Your task to perform on an android device: View the shopping cart on newegg.com. Add macbook pro 15 inch to the cart on newegg.com, then select checkout. Image 0: 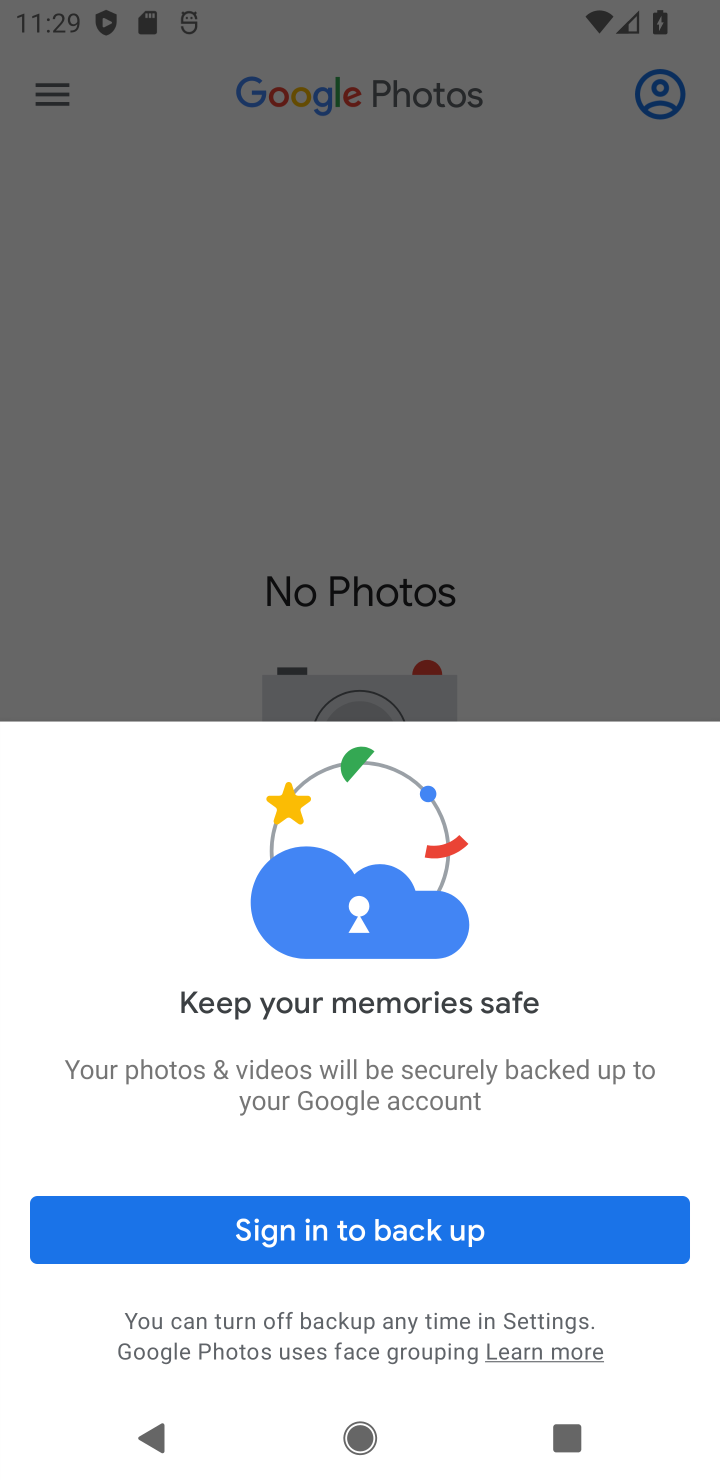
Step 0: press home button
Your task to perform on an android device: View the shopping cart on newegg.com. Add macbook pro 15 inch to the cart on newegg.com, then select checkout. Image 1: 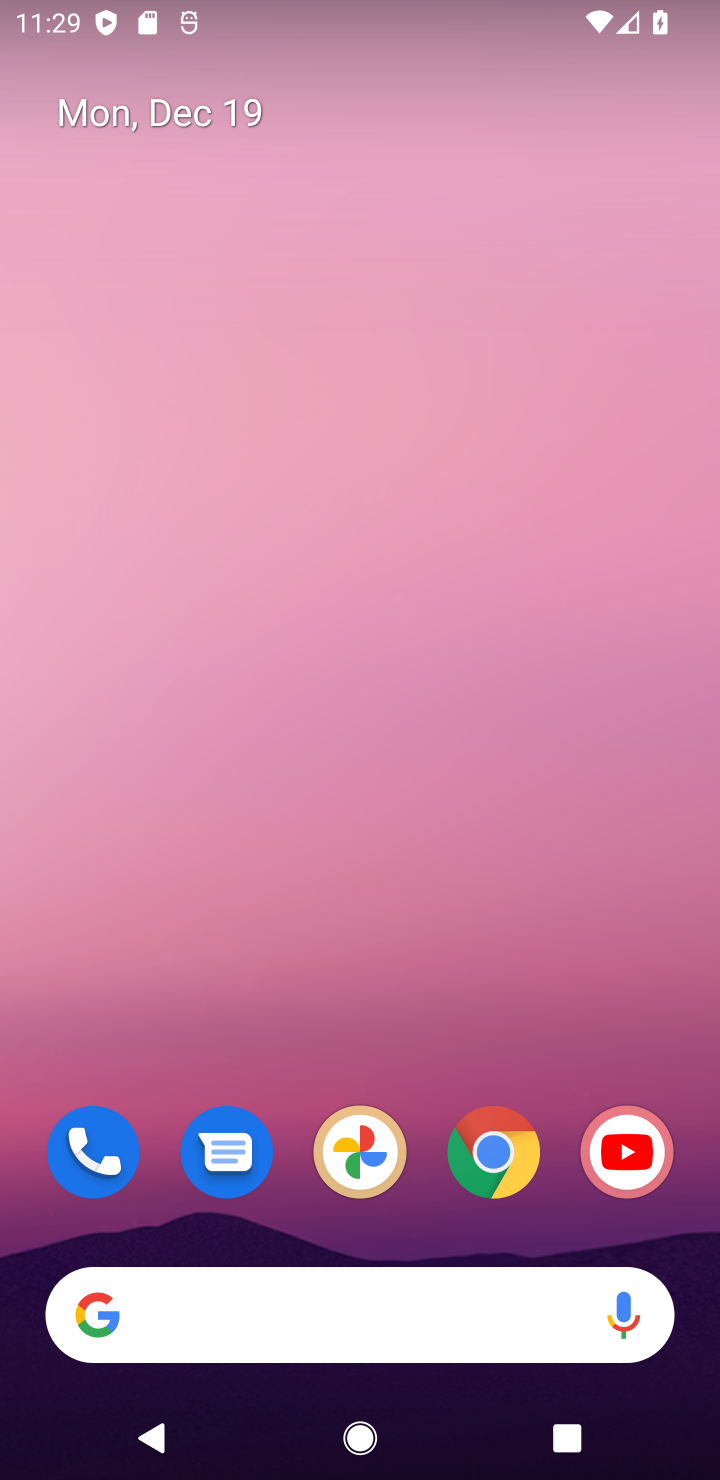
Step 1: click (494, 1138)
Your task to perform on an android device: View the shopping cart on newegg.com. Add macbook pro 15 inch to the cart on newegg.com, then select checkout. Image 2: 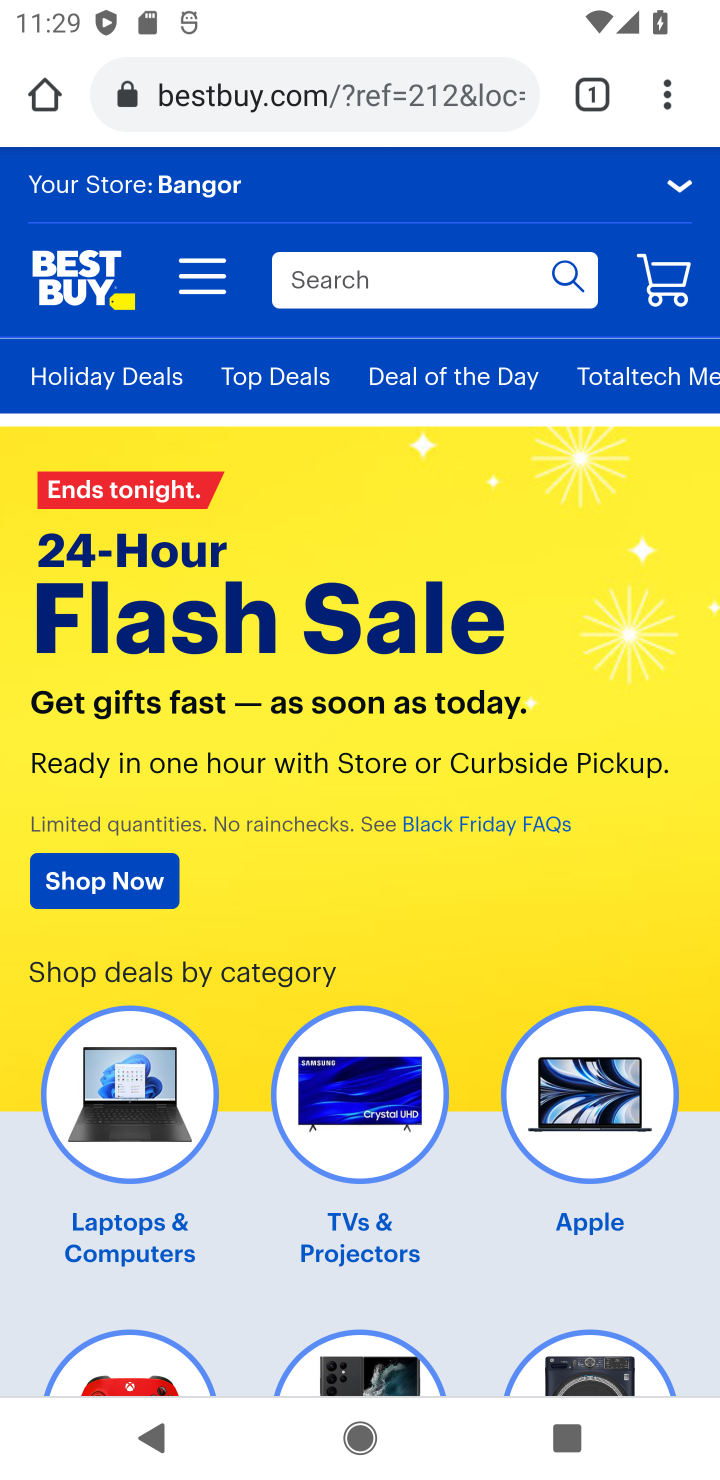
Step 2: click (378, 78)
Your task to perform on an android device: View the shopping cart on newegg.com. Add macbook pro 15 inch to the cart on newegg.com, then select checkout. Image 3: 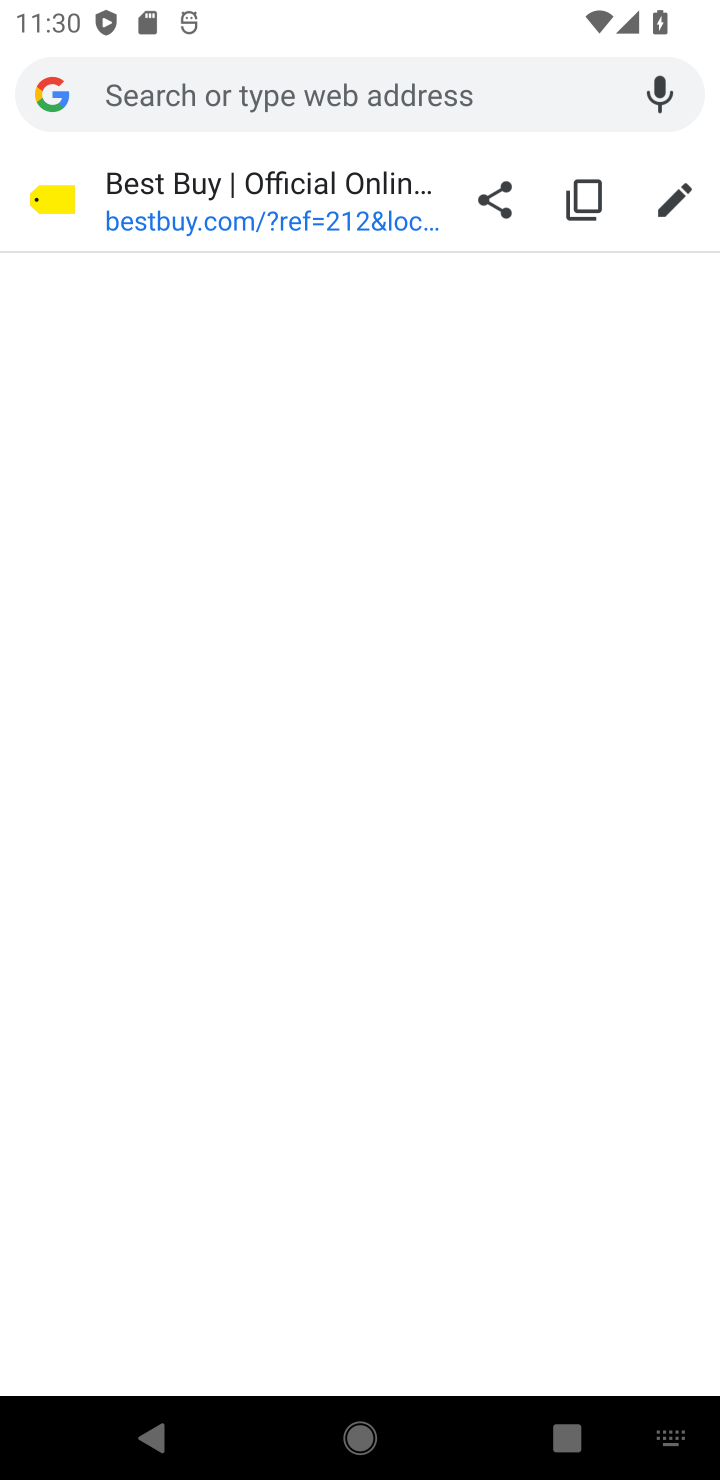
Step 3: type "neweggg"
Your task to perform on an android device: View the shopping cart on newegg.com. Add macbook pro 15 inch to the cart on newegg.com, then select checkout. Image 4: 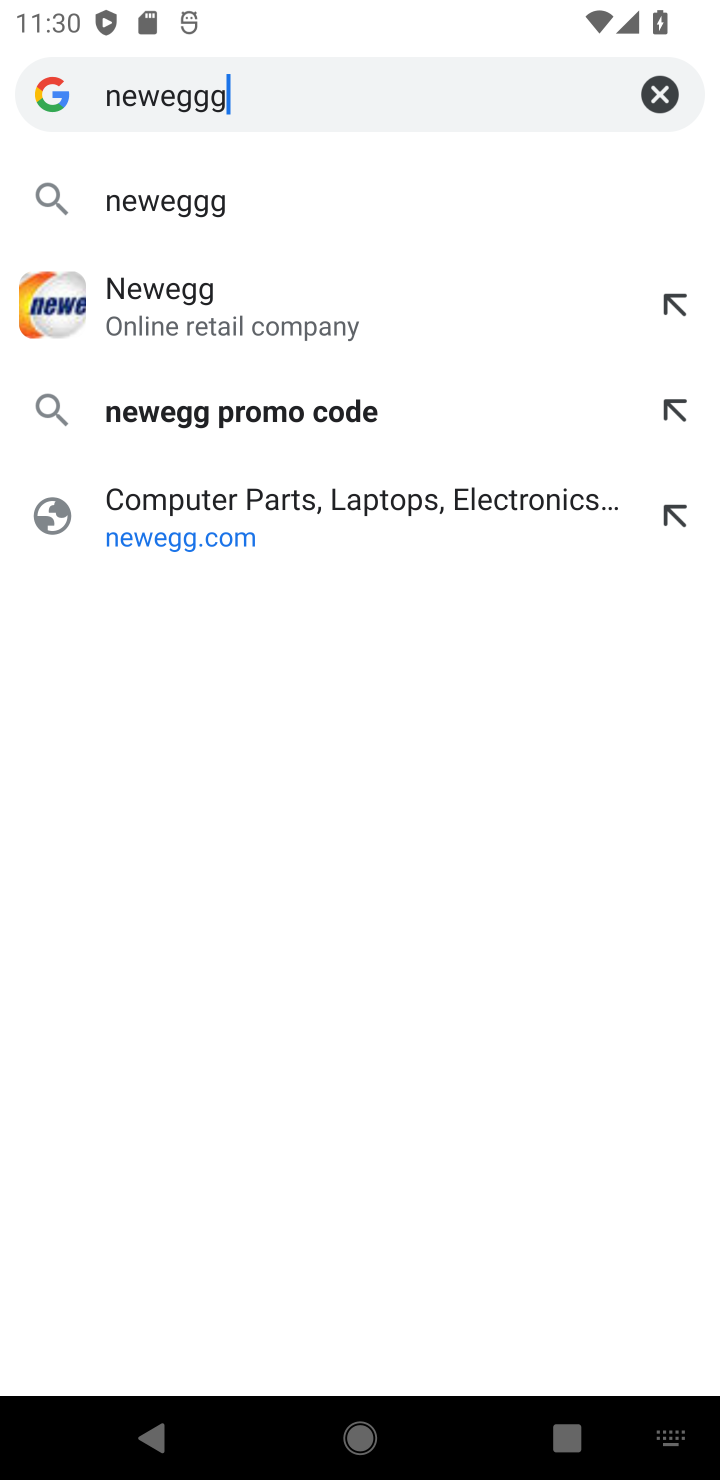
Step 4: click (234, 302)
Your task to perform on an android device: View the shopping cart on newegg.com. Add macbook pro 15 inch to the cart on newegg.com, then select checkout. Image 5: 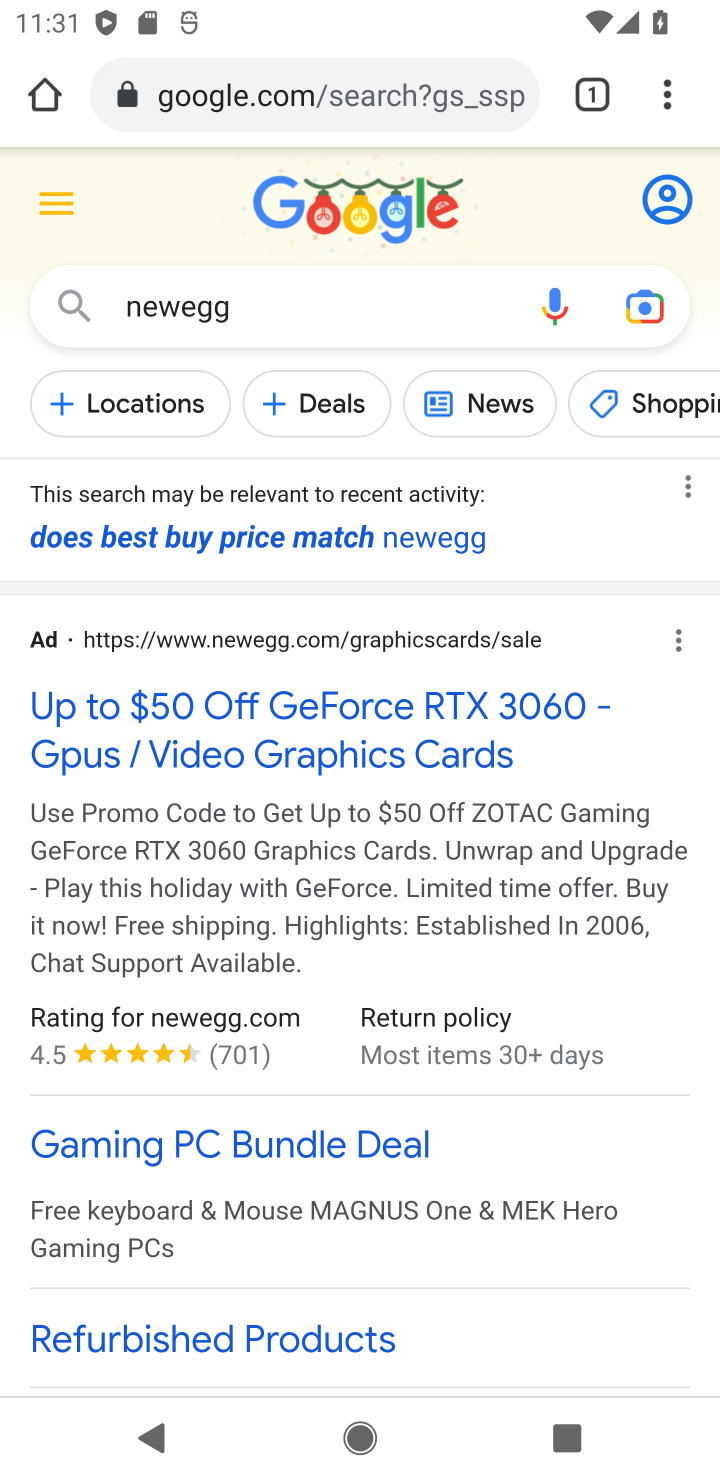
Step 5: click (414, 724)
Your task to perform on an android device: View the shopping cart on newegg.com. Add macbook pro 15 inch to the cart on newegg.com, then select checkout. Image 6: 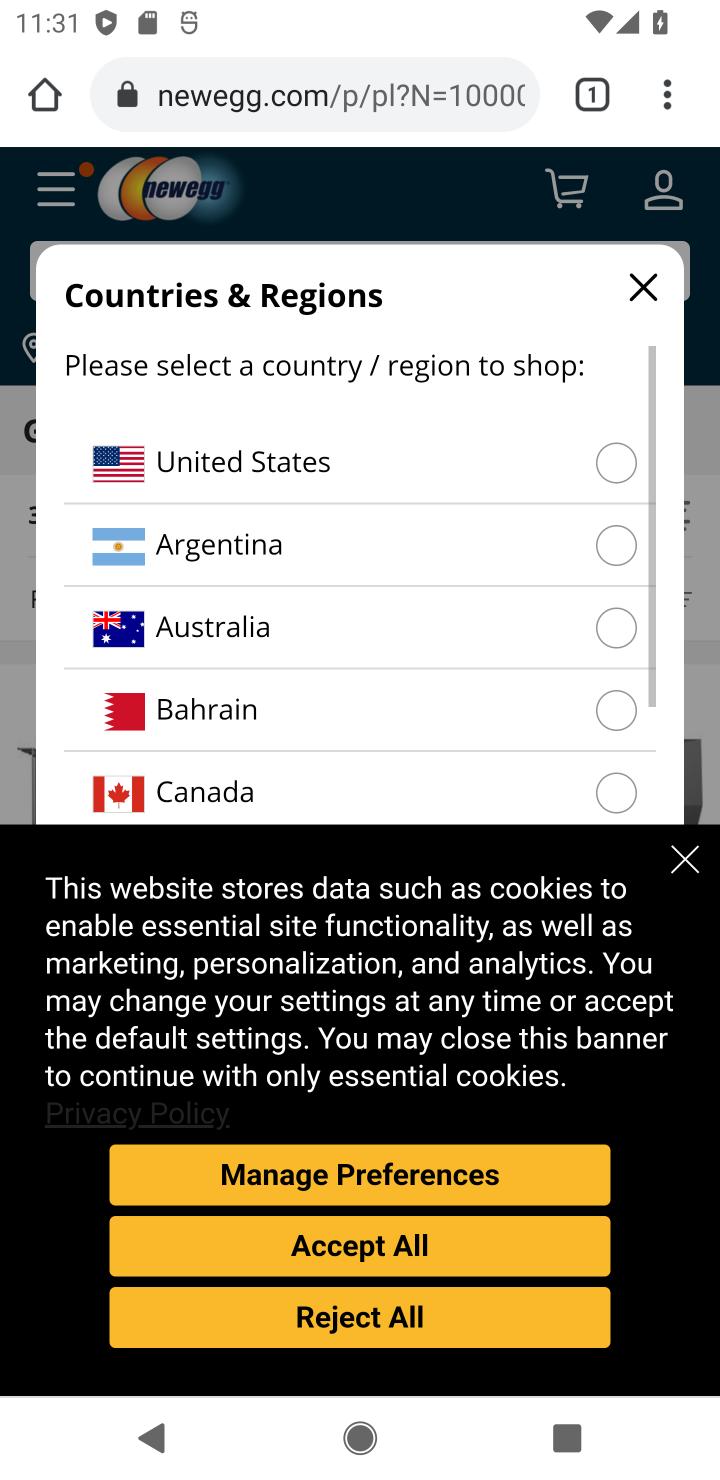
Step 6: click (391, 1247)
Your task to perform on an android device: View the shopping cart on newegg.com. Add macbook pro 15 inch to the cart on newegg.com, then select checkout. Image 7: 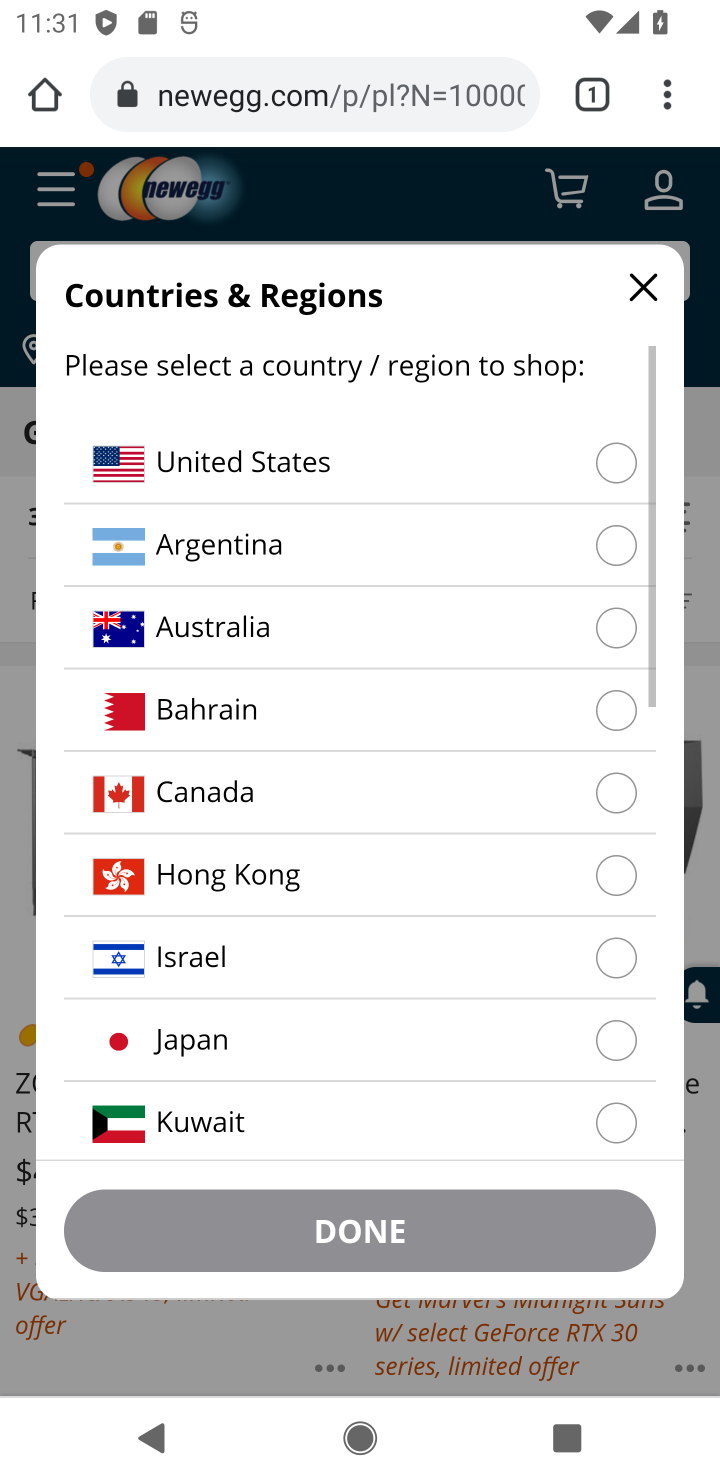
Step 7: click (434, 463)
Your task to perform on an android device: View the shopping cart on newegg.com. Add macbook pro 15 inch to the cart on newegg.com, then select checkout. Image 8: 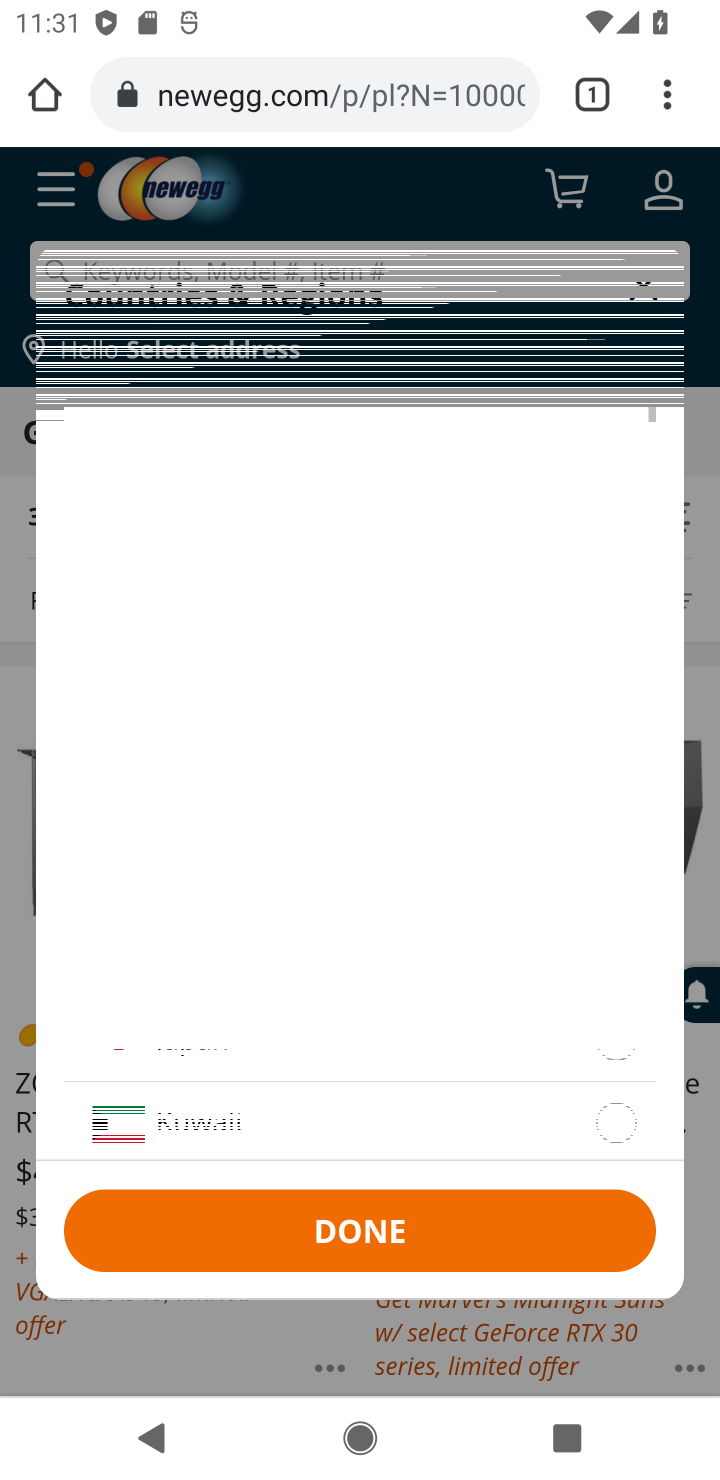
Step 8: click (356, 1242)
Your task to perform on an android device: View the shopping cart on newegg.com. Add macbook pro 15 inch to the cart on newegg.com, then select checkout. Image 9: 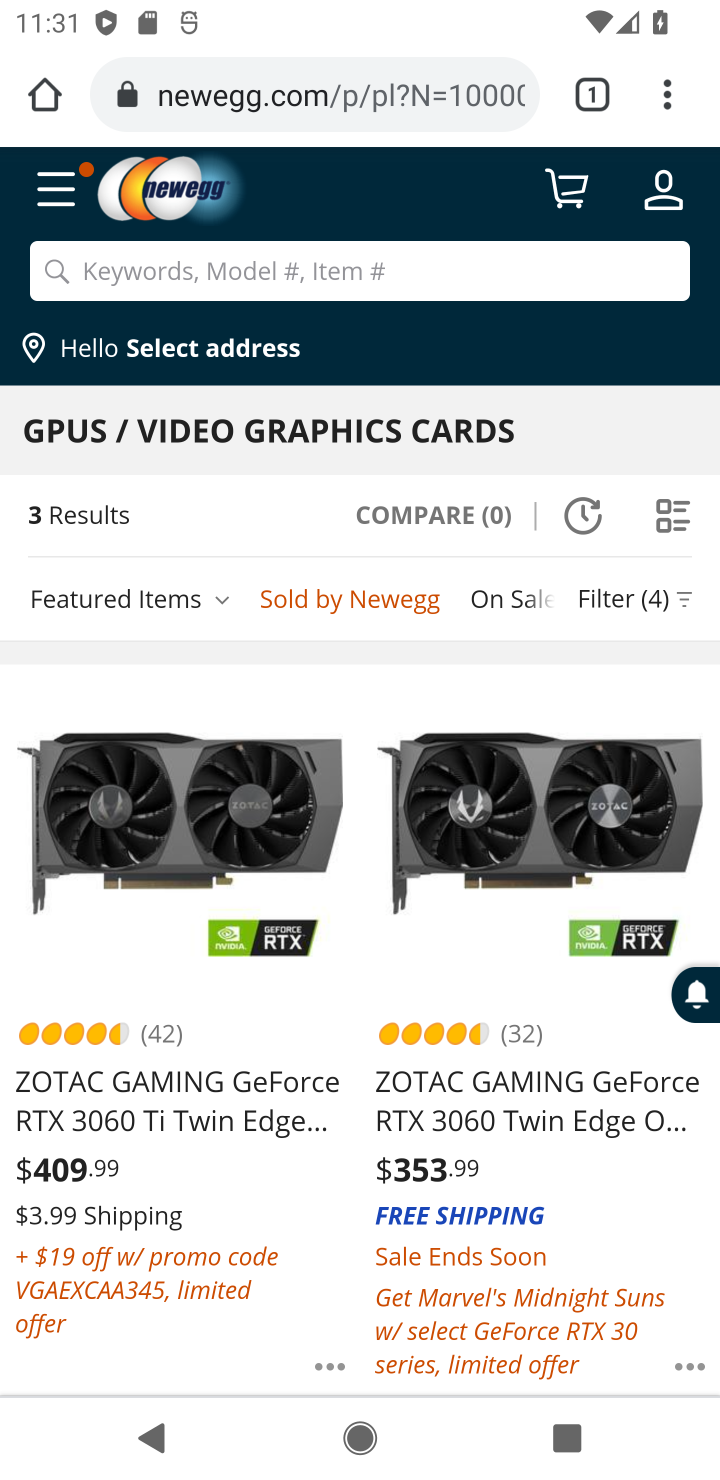
Step 9: click (444, 271)
Your task to perform on an android device: View the shopping cart on newegg.com. Add macbook pro 15 inch to the cart on newegg.com, then select checkout. Image 10: 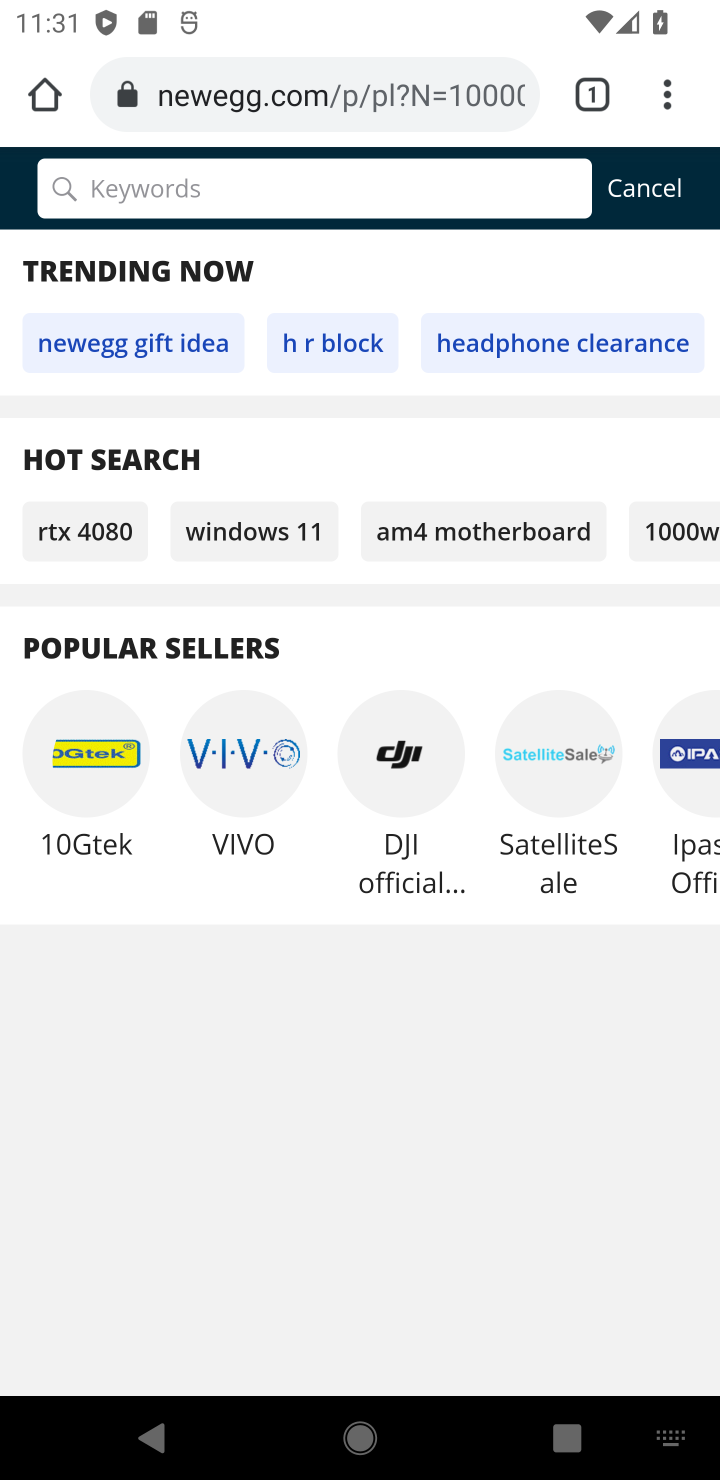
Step 10: type "macbook pro 15 inch"
Your task to perform on an android device: View the shopping cart on newegg.com. Add macbook pro 15 inch to the cart on newegg.com, then select checkout. Image 11: 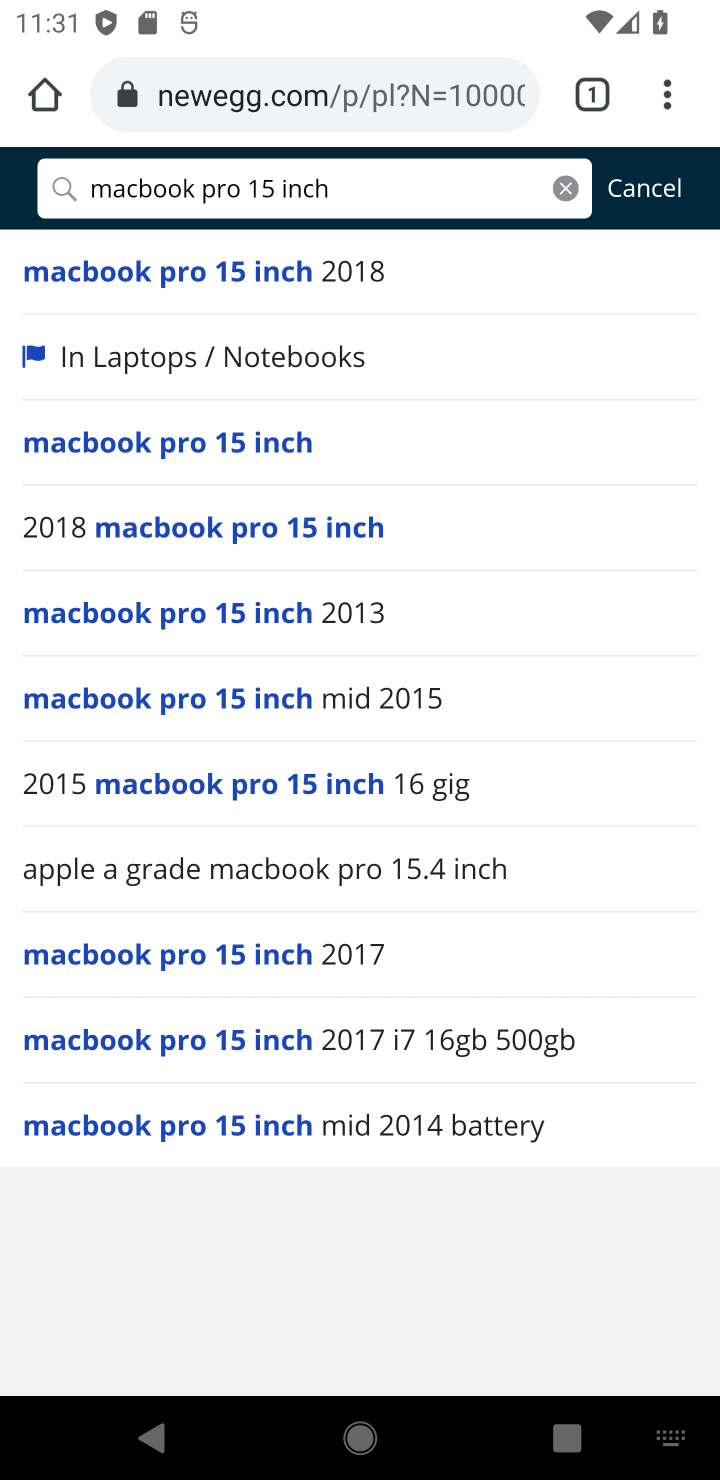
Step 11: click (255, 279)
Your task to perform on an android device: View the shopping cart on newegg.com. Add macbook pro 15 inch to the cart on newegg.com, then select checkout. Image 12: 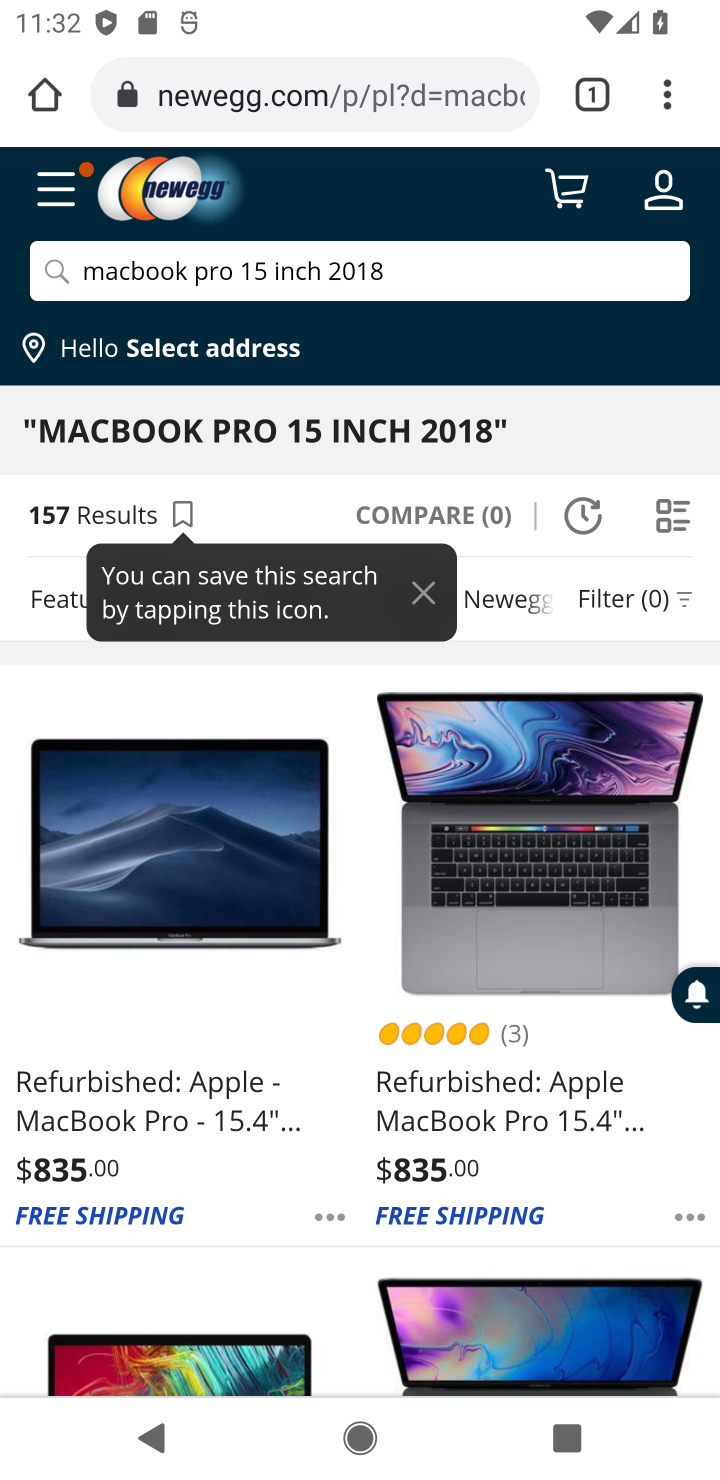
Step 12: click (205, 996)
Your task to perform on an android device: View the shopping cart on newegg.com. Add macbook pro 15 inch to the cart on newegg.com, then select checkout. Image 13: 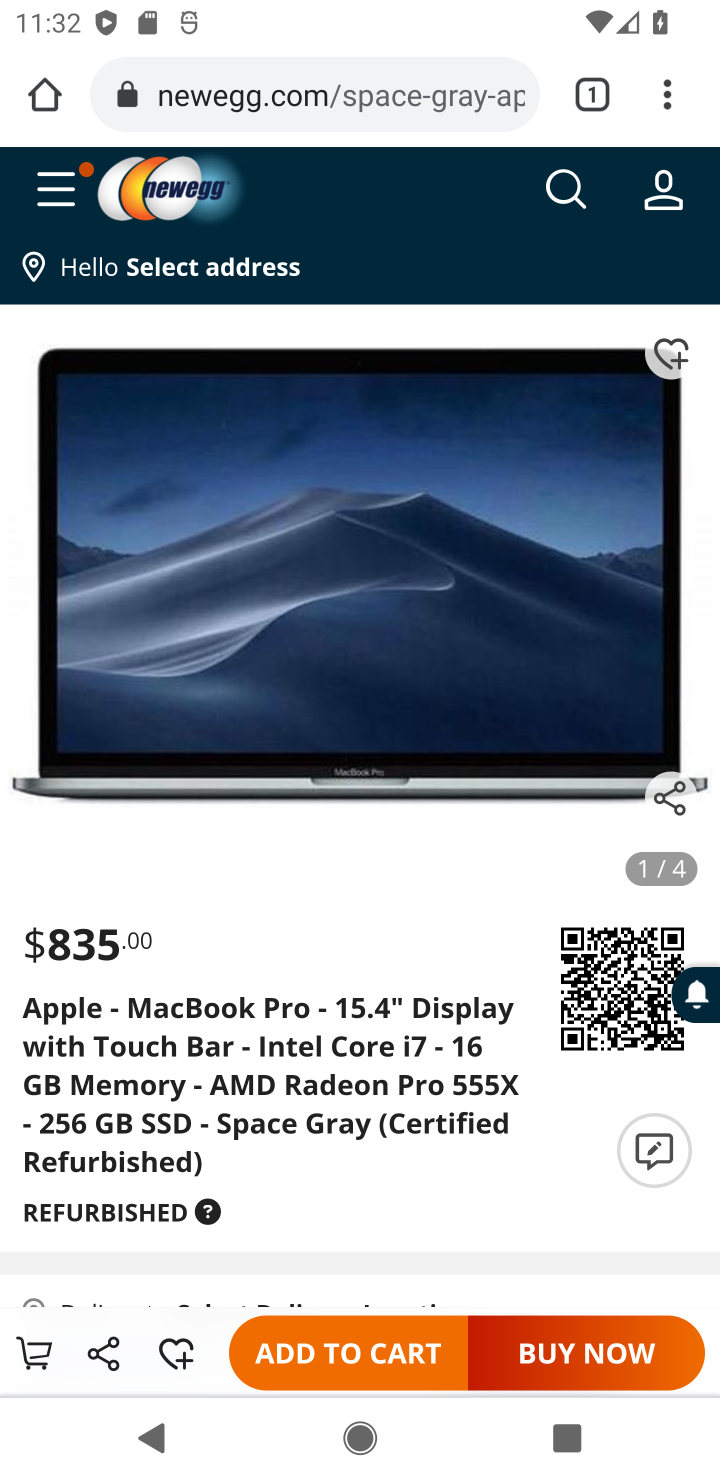
Step 13: click (323, 1354)
Your task to perform on an android device: View the shopping cart on newegg.com. Add macbook pro 15 inch to the cart on newegg.com, then select checkout. Image 14: 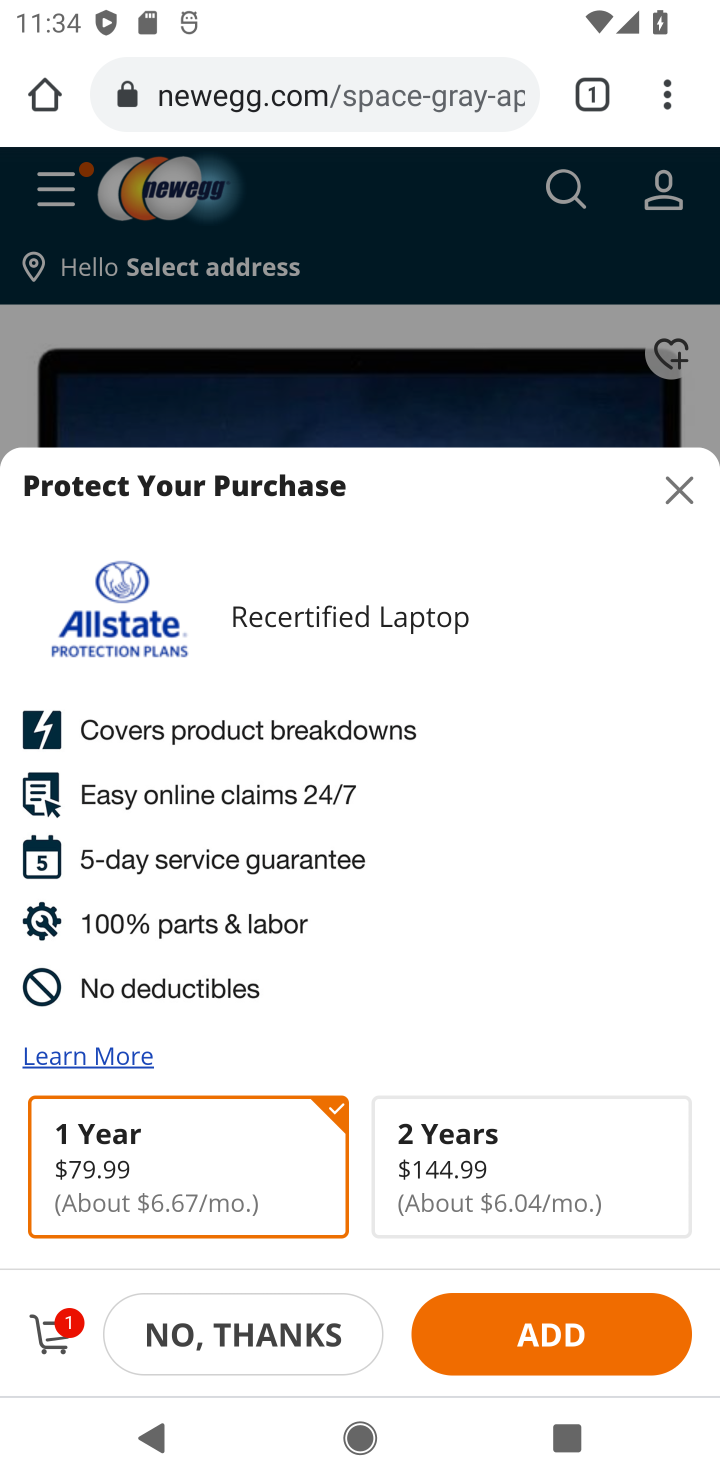
Step 14: task complete